Your task to perform on an android device: Search for the best gaming monitor on Best Buy Image 0: 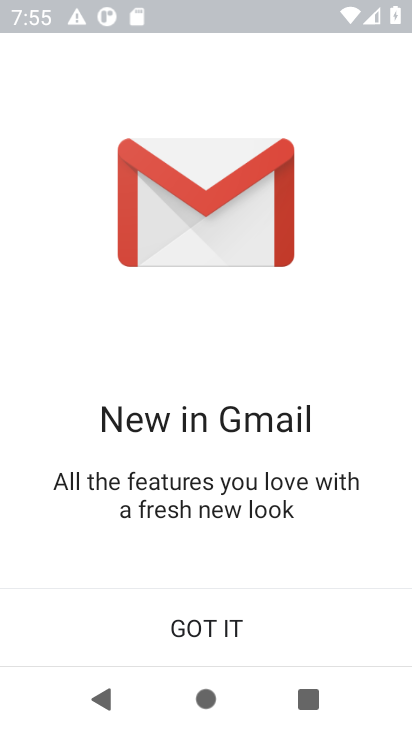
Step 0: press home button
Your task to perform on an android device: Search for the best gaming monitor on Best Buy Image 1: 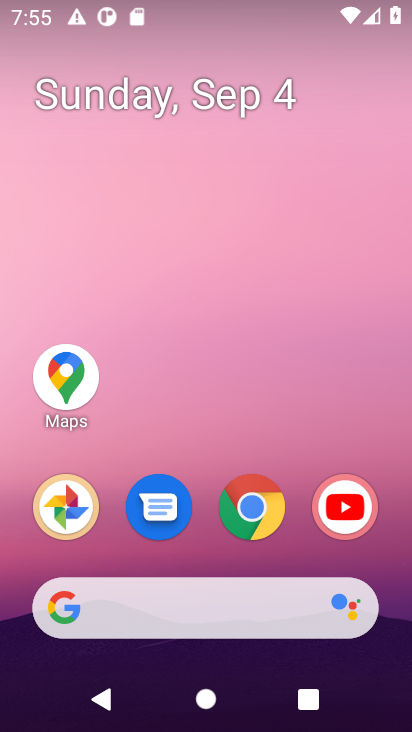
Step 1: click (252, 506)
Your task to perform on an android device: Search for the best gaming monitor on Best Buy Image 2: 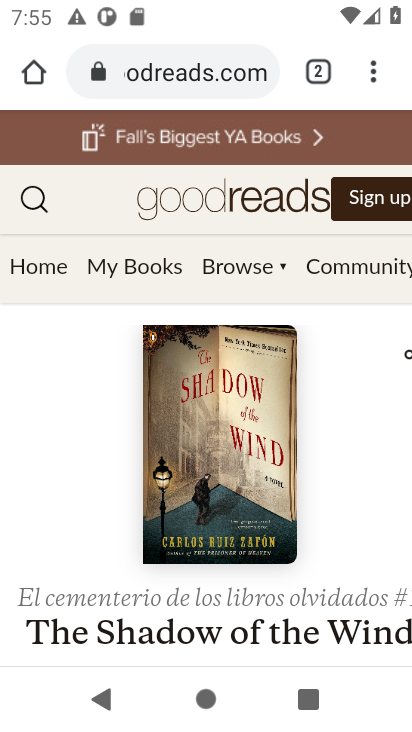
Step 2: click (38, 67)
Your task to perform on an android device: Search for the best gaming monitor on Best Buy Image 3: 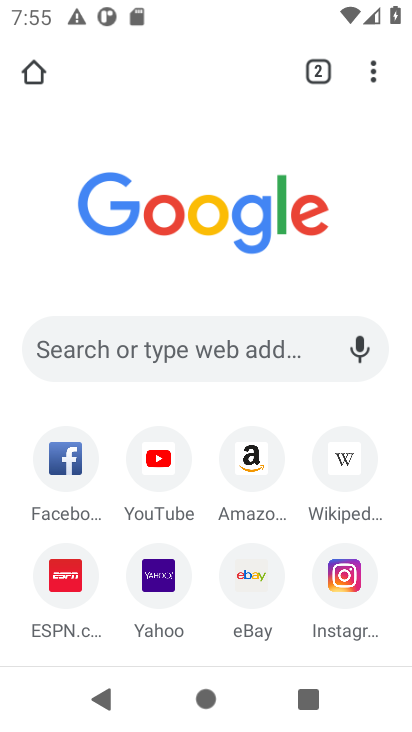
Step 3: click (123, 345)
Your task to perform on an android device: Search for the best gaming monitor on Best Buy Image 4: 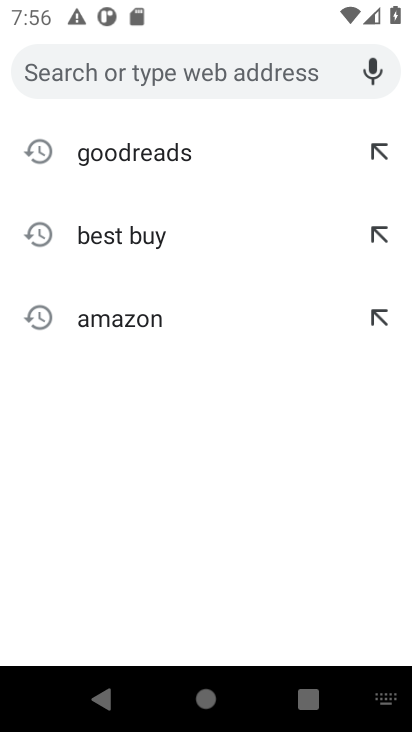
Step 4: type "Best buy"
Your task to perform on an android device: Search for the best gaming monitor on Best Buy Image 5: 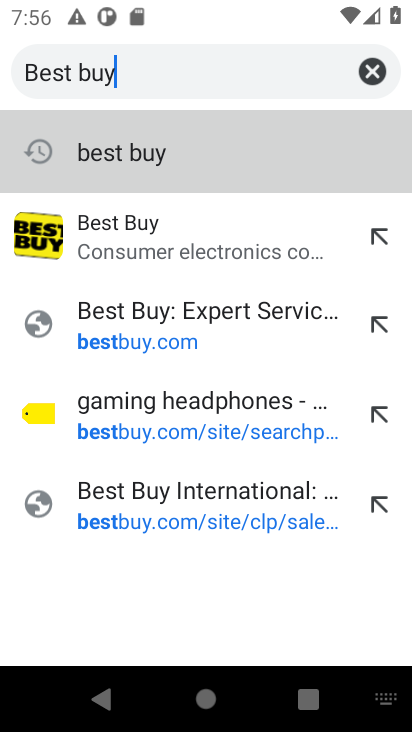
Step 5: click (112, 224)
Your task to perform on an android device: Search for the best gaming monitor on Best Buy Image 6: 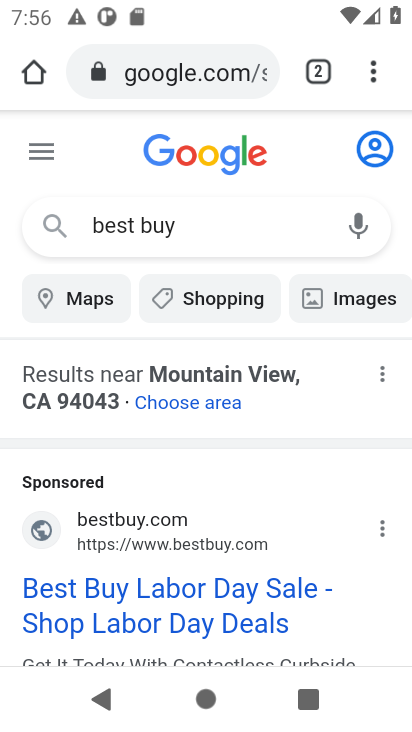
Step 6: drag from (256, 518) to (253, 263)
Your task to perform on an android device: Search for the best gaming monitor on Best Buy Image 7: 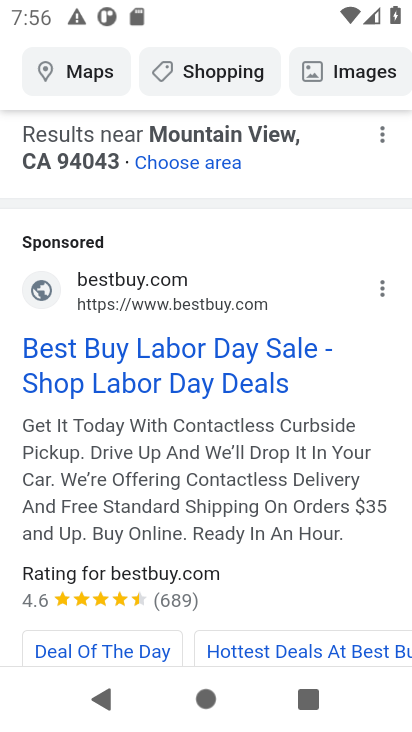
Step 7: click (109, 365)
Your task to perform on an android device: Search for the best gaming monitor on Best Buy Image 8: 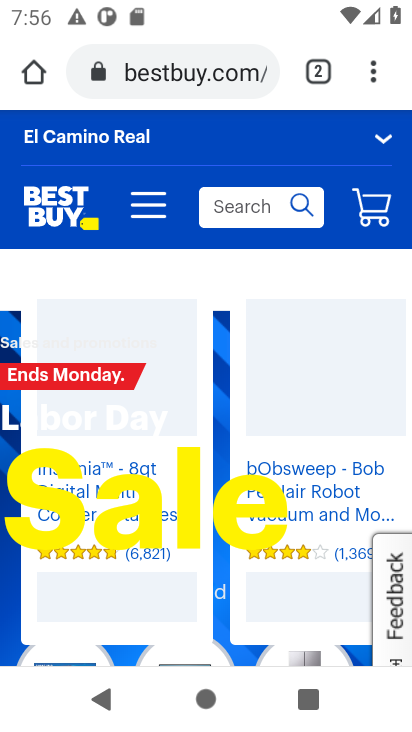
Step 8: click (230, 208)
Your task to perform on an android device: Search for the best gaming monitor on Best Buy Image 9: 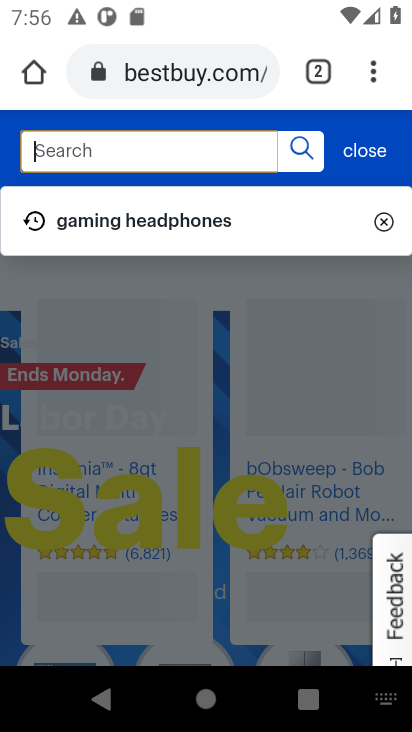
Step 9: type "gaming monitor"
Your task to perform on an android device: Search for the best gaming monitor on Best Buy Image 10: 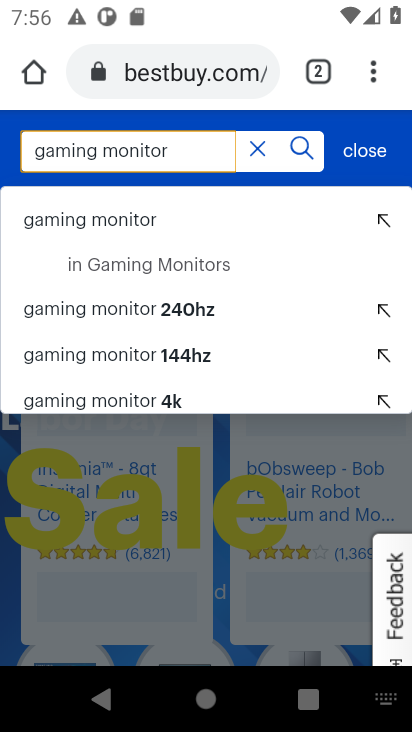
Step 10: click (74, 210)
Your task to perform on an android device: Search for the best gaming monitor on Best Buy Image 11: 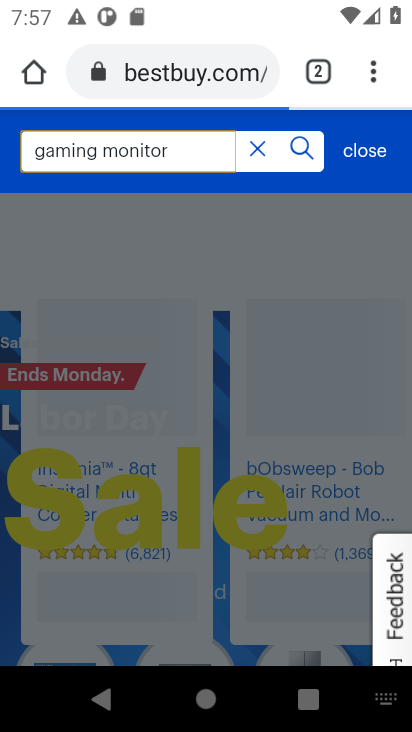
Step 11: click (302, 142)
Your task to perform on an android device: Search for the best gaming monitor on Best Buy Image 12: 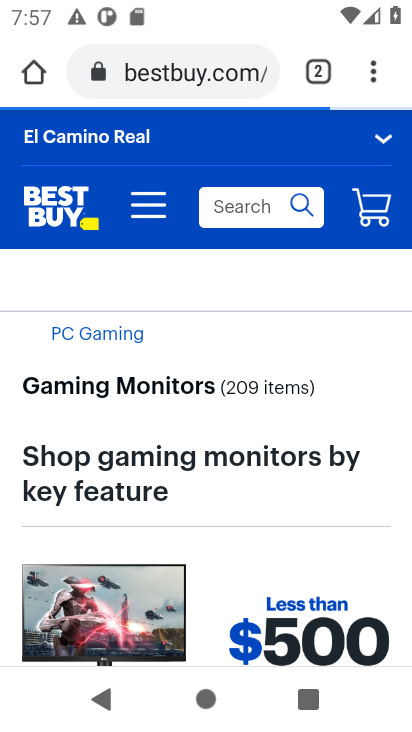
Step 12: task complete